Your task to perform on an android device: turn off location history Image 0: 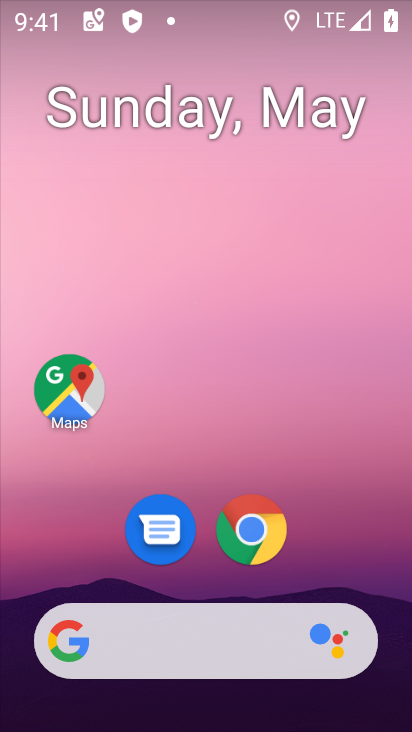
Step 0: drag from (388, 527) to (377, 4)
Your task to perform on an android device: turn off location history Image 1: 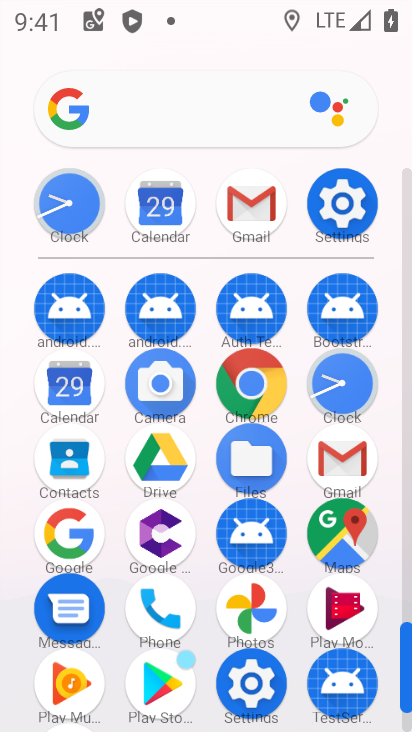
Step 1: click (324, 206)
Your task to perform on an android device: turn off location history Image 2: 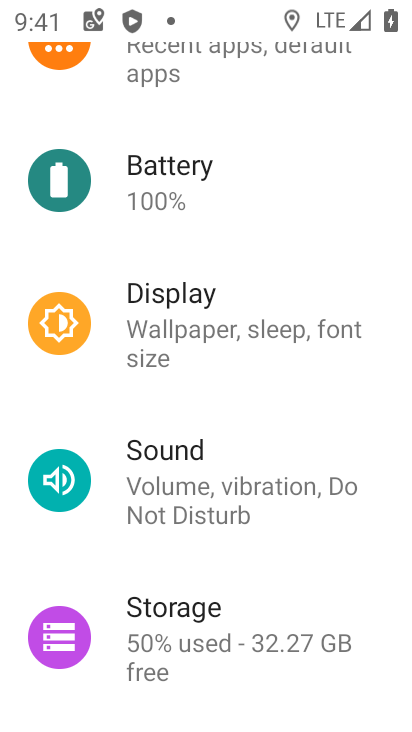
Step 2: click (289, 586)
Your task to perform on an android device: turn off location history Image 3: 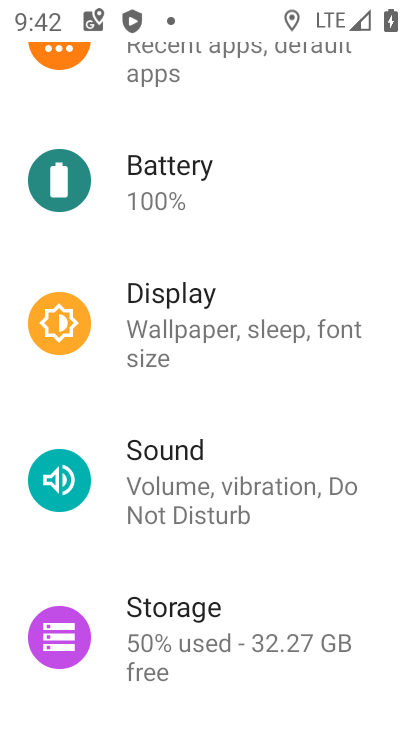
Step 3: drag from (289, 586) to (302, 234)
Your task to perform on an android device: turn off location history Image 4: 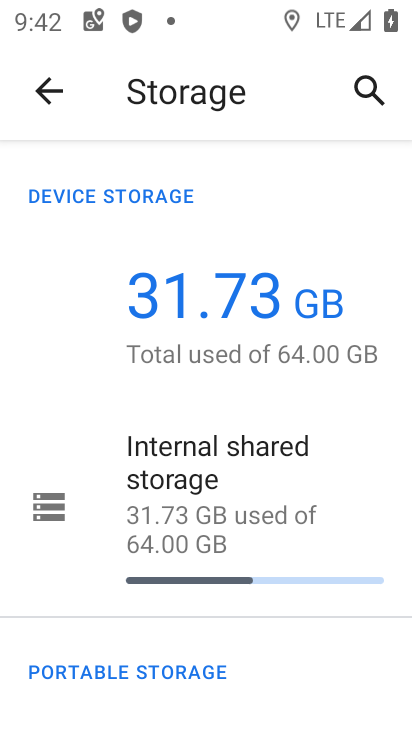
Step 4: click (41, 108)
Your task to perform on an android device: turn off location history Image 5: 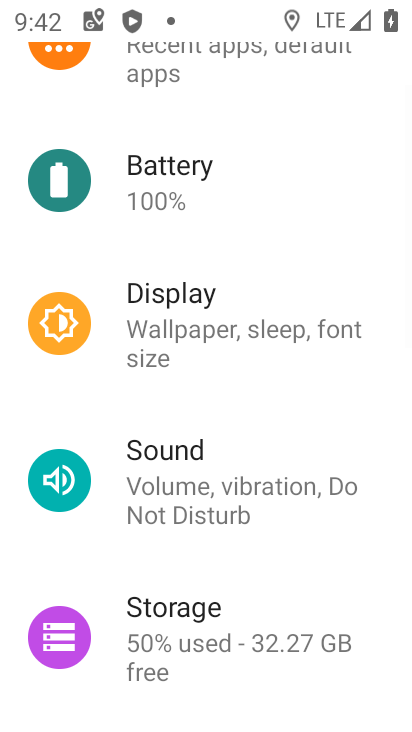
Step 5: drag from (210, 607) to (210, 298)
Your task to perform on an android device: turn off location history Image 6: 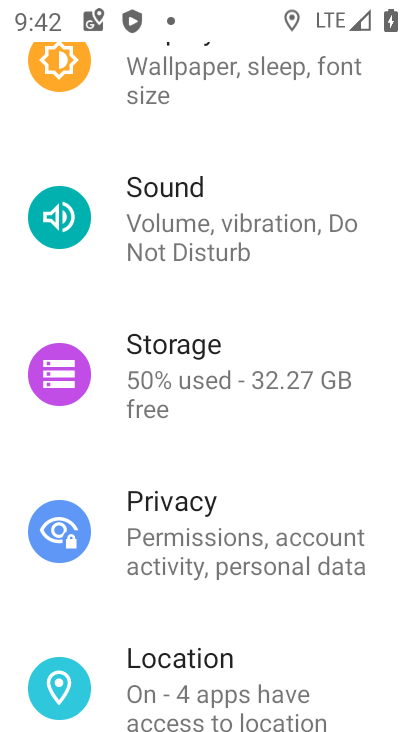
Step 6: click (258, 660)
Your task to perform on an android device: turn off location history Image 7: 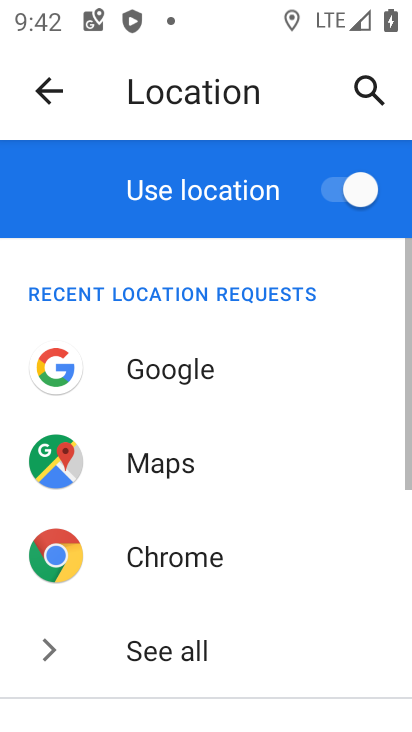
Step 7: task complete